Your task to perform on an android device: Go to display settings Image 0: 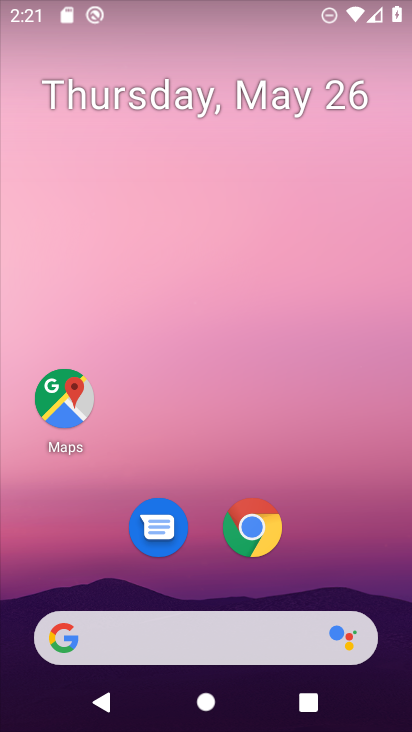
Step 0: drag from (204, 590) to (234, 98)
Your task to perform on an android device: Go to display settings Image 1: 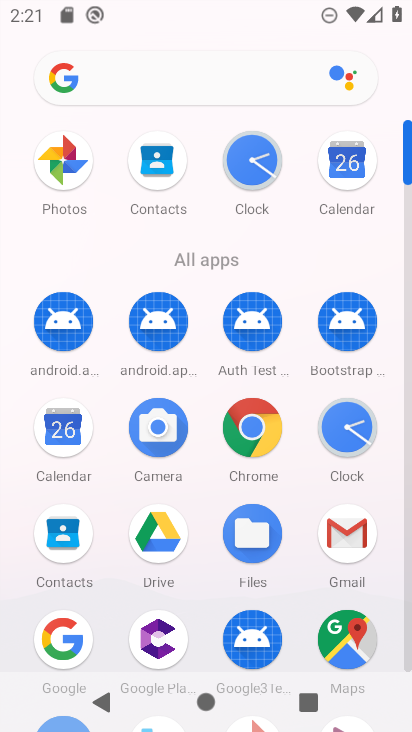
Step 1: drag from (195, 637) to (279, 43)
Your task to perform on an android device: Go to display settings Image 2: 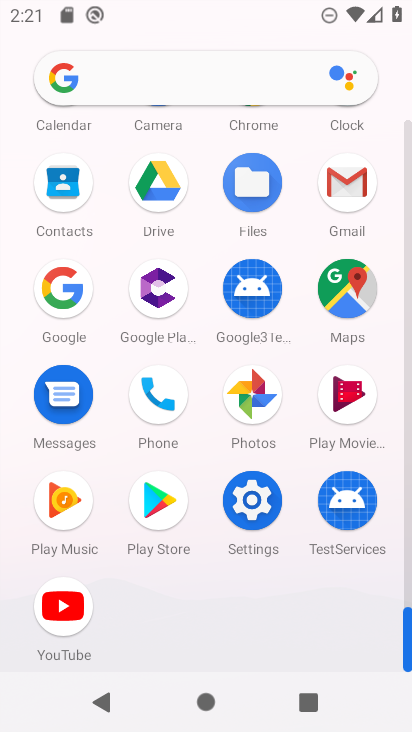
Step 2: click (254, 526)
Your task to perform on an android device: Go to display settings Image 3: 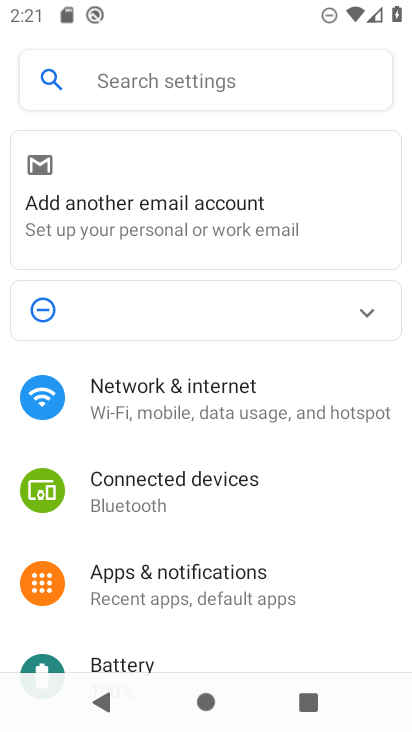
Step 3: drag from (145, 601) to (218, 118)
Your task to perform on an android device: Go to display settings Image 4: 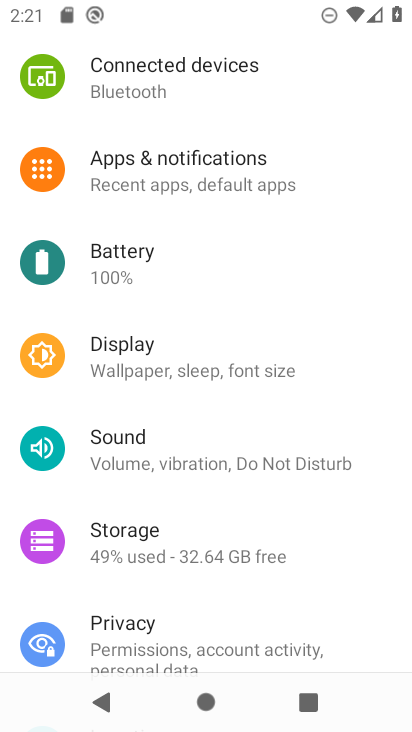
Step 4: click (184, 364)
Your task to perform on an android device: Go to display settings Image 5: 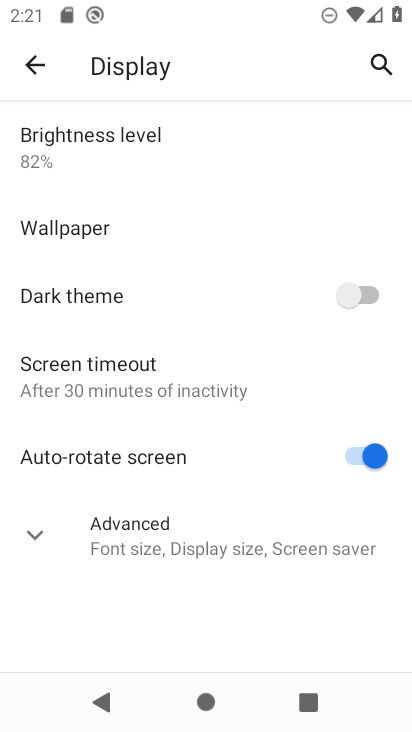
Step 5: task complete